Your task to perform on an android device: Go to Google maps Image 0: 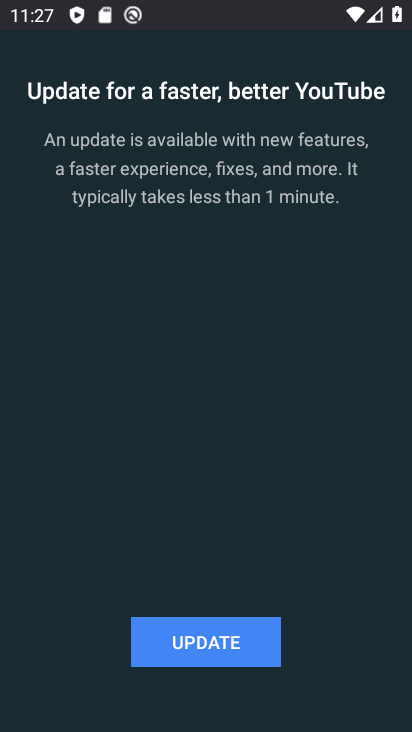
Step 0: click (218, 330)
Your task to perform on an android device: Go to Google maps Image 1: 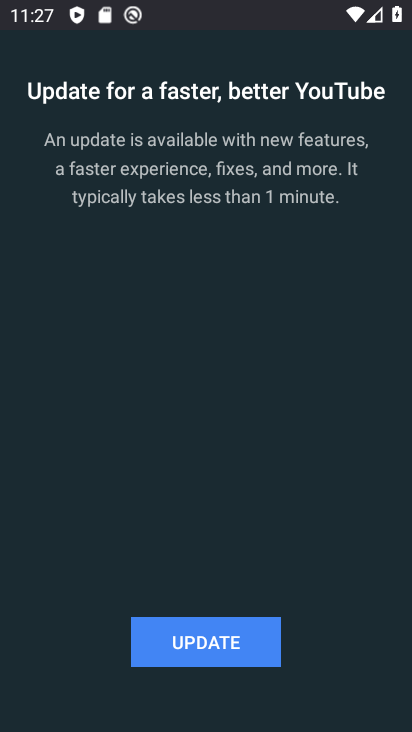
Step 1: press home button
Your task to perform on an android device: Go to Google maps Image 2: 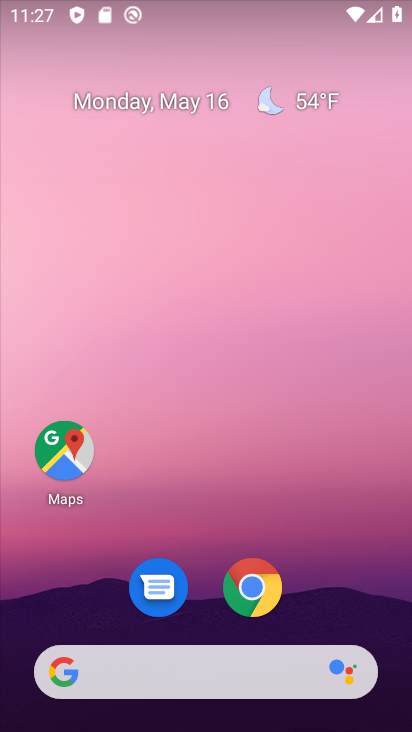
Step 2: click (70, 442)
Your task to perform on an android device: Go to Google maps Image 3: 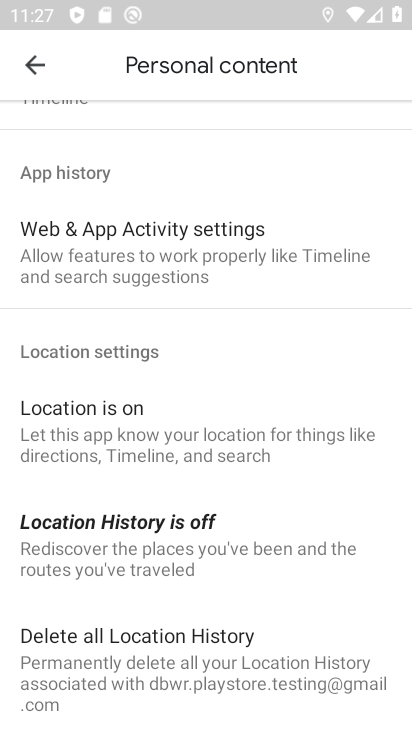
Step 3: click (34, 57)
Your task to perform on an android device: Go to Google maps Image 4: 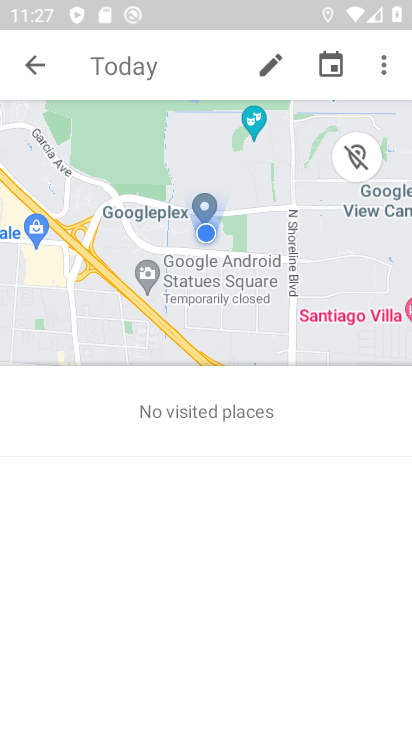
Step 4: click (34, 57)
Your task to perform on an android device: Go to Google maps Image 5: 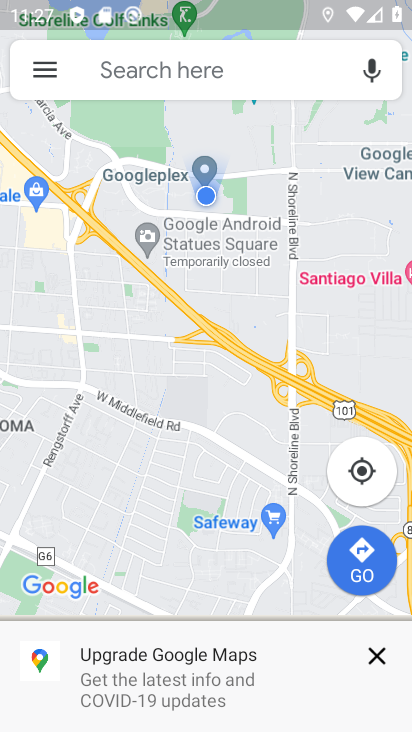
Step 5: task complete